Your task to perform on an android device: open the mobile data screen to see how much data has been used Image 0: 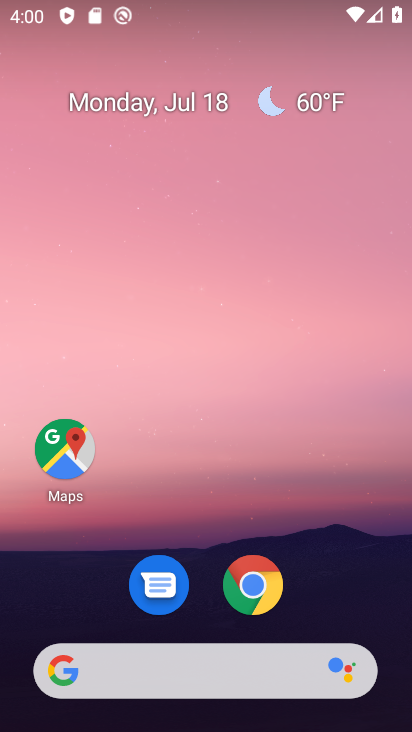
Step 0: drag from (236, 519) to (252, 1)
Your task to perform on an android device: open the mobile data screen to see how much data has been used Image 1: 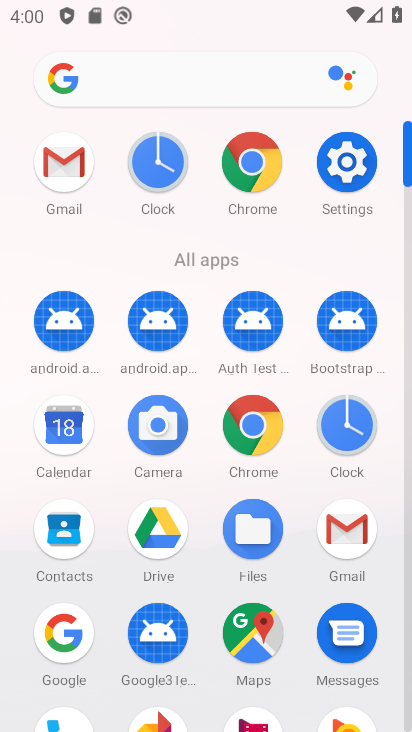
Step 1: click (351, 156)
Your task to perform on an android device: open the mobile data screen to see how much data has been used Image 2: 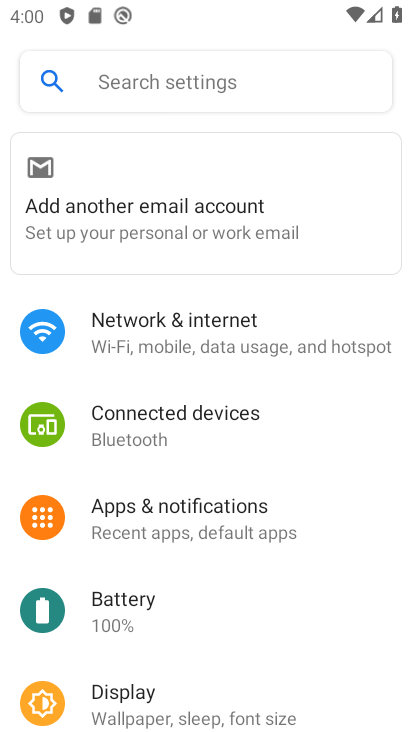
Step 2: click (234, 337)
Your task to perform on an android device: open the mobile data screen to see how much data has been used Image 3: 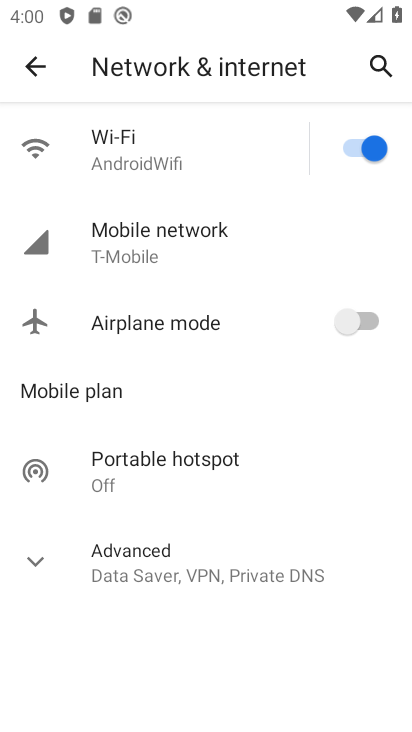
Step 3: click (211, 236)
Your task to perform on an android device: open the mobile data screen to see how much data has been used Image 4: 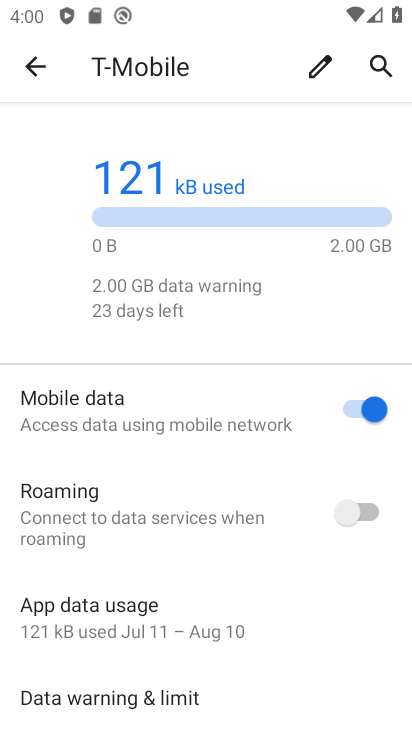
Step 4: task complete